Your task to perform on an android device: What's on my calendar today? Image 0: 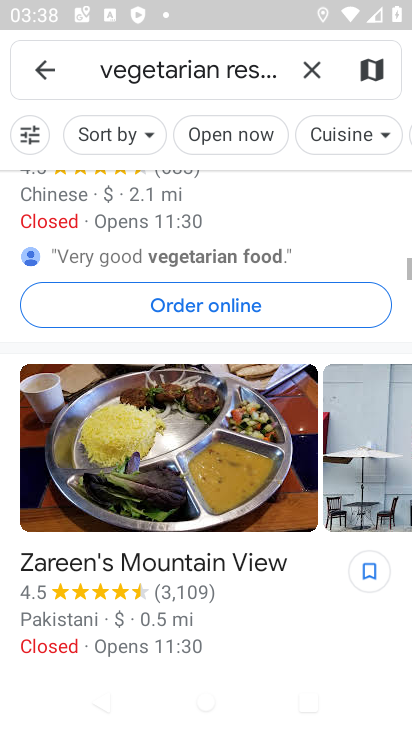
Step 0: press home button
Your task to perform on an android device: What's on my calendar today? Image 1: 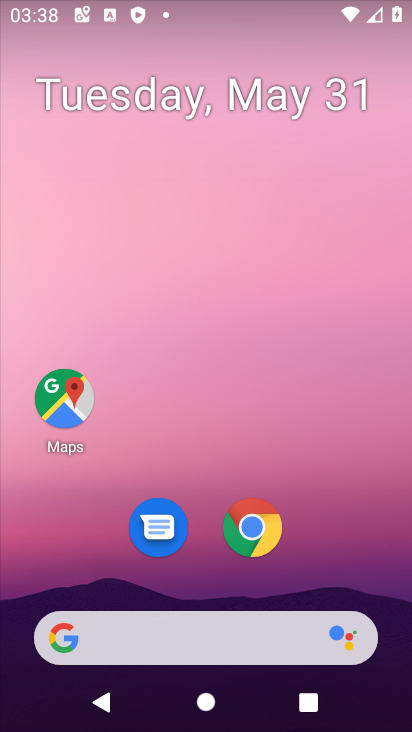
Step 1: drag from (400, 630) to (371, 172)
Your task to perform on an android device: What's on my calendar today? Image 2: 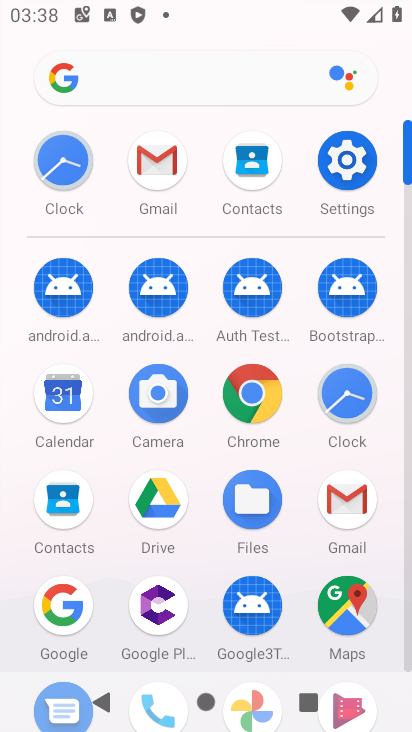
Step 2: click (410, 655)
Your task to perform on an android device: What's on my calendar today? Image 3: 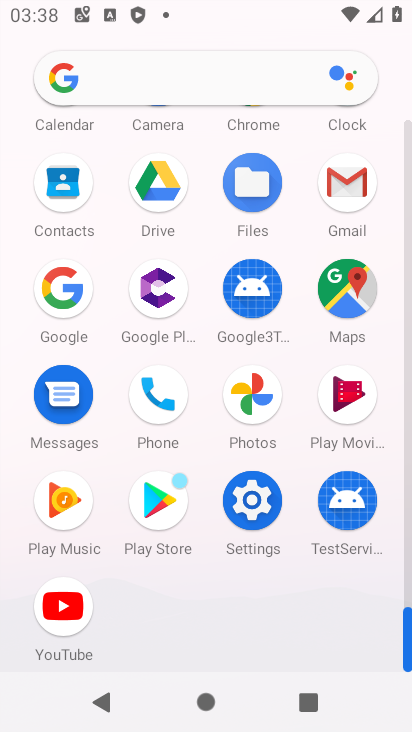
Step 3: click (407, 205)
Your task to perform on an android device: What's on my calendar today? Image 4: 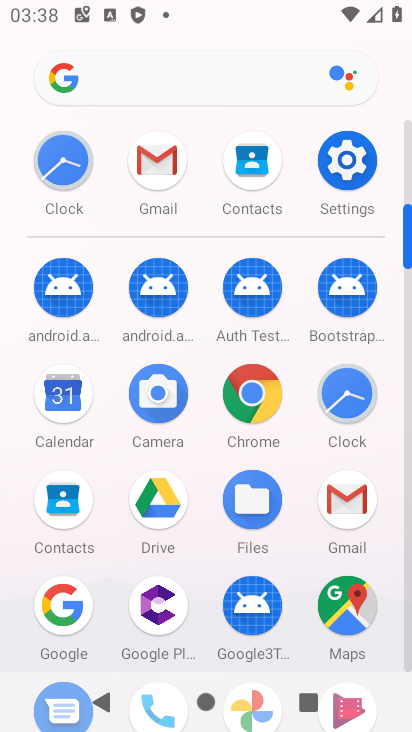
Step 4: click (60, 392)
Your task to perform on an android device: What's on my calendar today? Image 5: 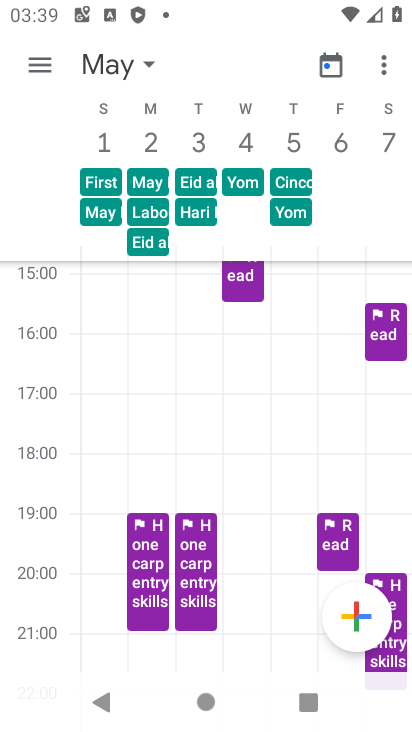
Step 5: click (44, 66)
Your task to perform on an android device: What's on my calendar today? Image 6: 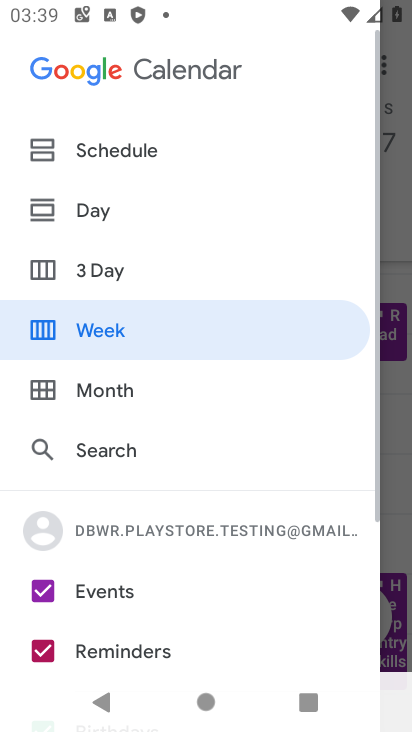
Step 6: click (100, 204)
Your task to perform on an android device: What's on my calendar today? Image 7: 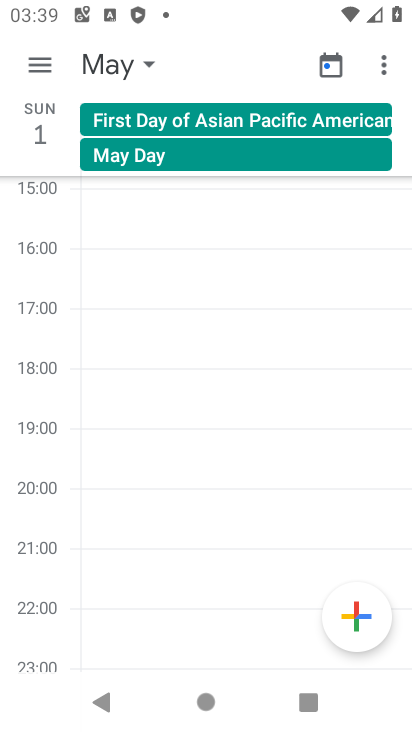
Step 7: click (146, 67)
Your task to perform on an android device: What's on my calendar today? Image 8: 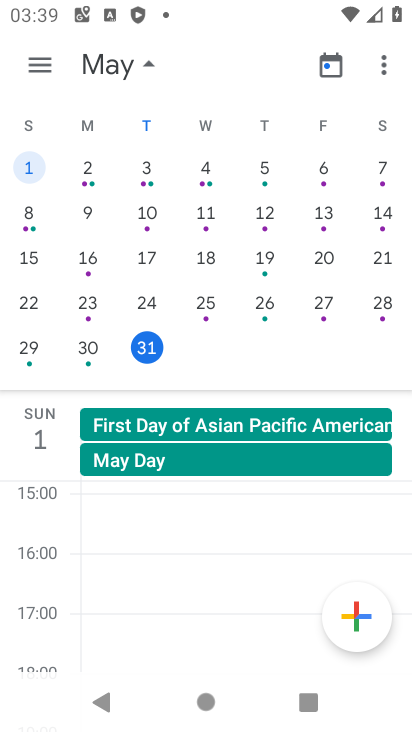
Step 8: click (149, 347)
Your task to perform on an android device: What's on my calendar today? Image 9: 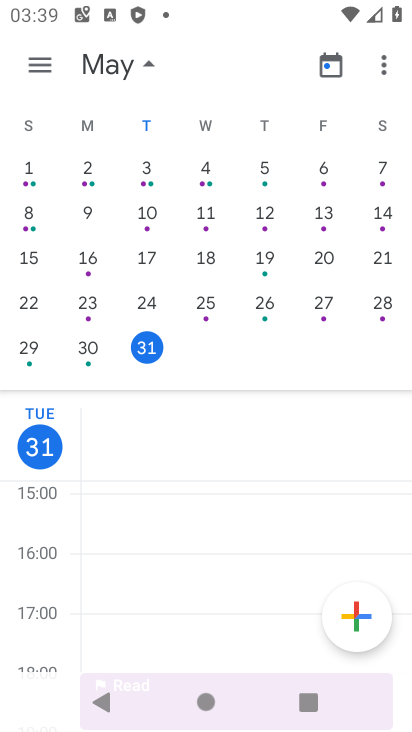
Step 9: task complete